Your task to perform on an android device: Show me popular videos on Youtube Image 0: 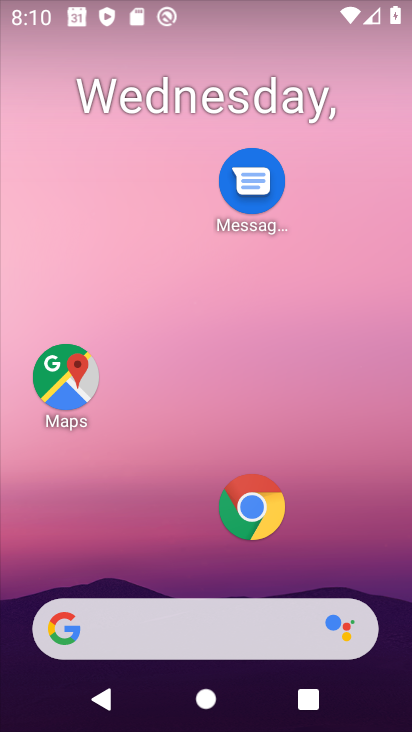
Step 0: drag from (71, 577) to (176, 44)
Your task to perform on an android device: Show me popular videos on Youtube Image 1: 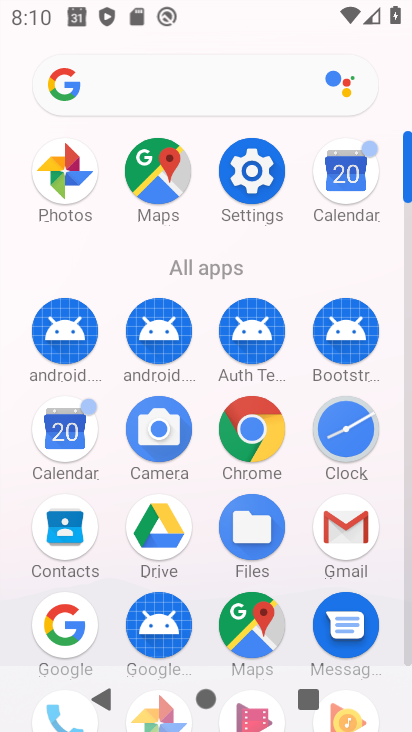
Step 1: drag from (200, 600) to (282, 214)
Your task to perform on an android device: Show me popular videos on Youtube Image 2: 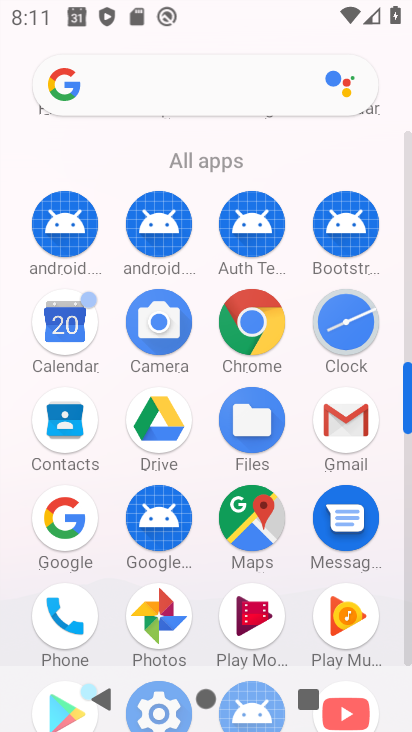
Step 2: drag from (331, 667) to (387, 414)
Your task to perform on an android device: Show me popular videos on Youtube Image 3: 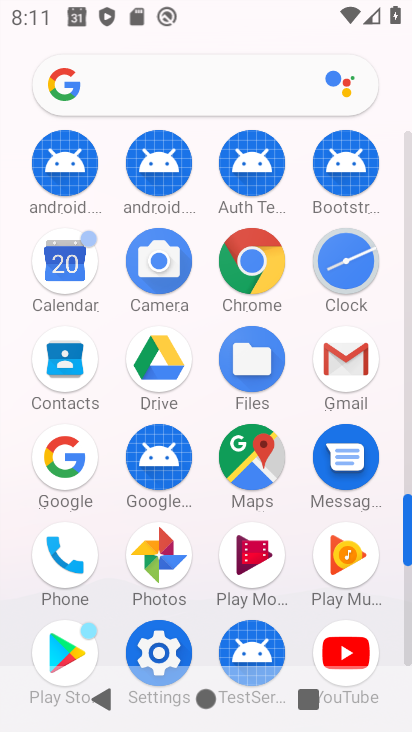
Step 3: click (340, 639)
Your task to perform on an android device: Show me popular videos on Youtube Image 4: 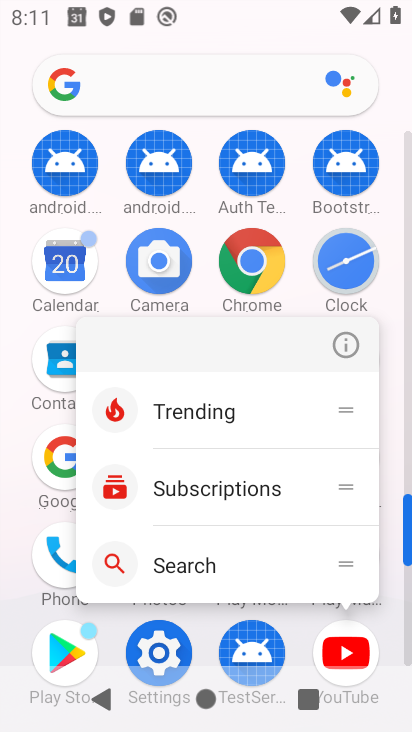
Step 4: click (363, 641)
Your task to perform on an android device: Show me popular videos on Youtube Image 5: 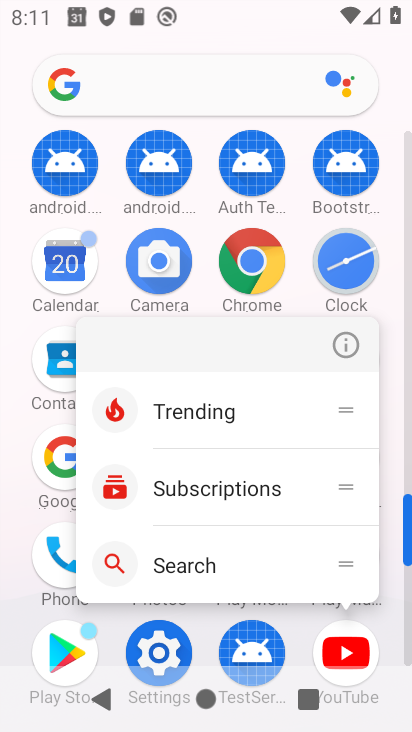
Step 5: click (368, 648)
Your task to perform on an android device: Show me popular videos on Youtube Image 6: 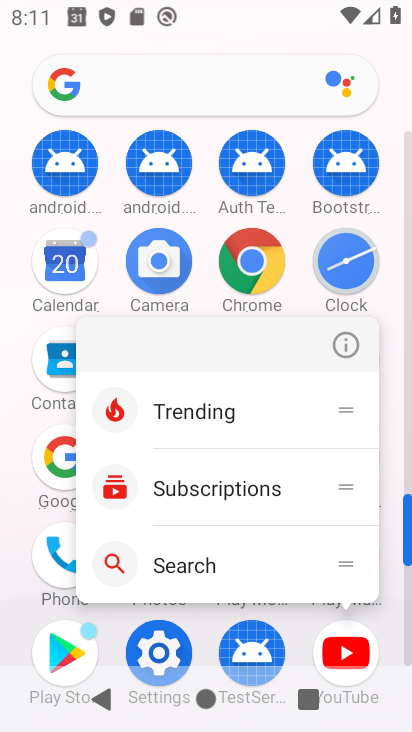
Step 6: click (368, 652)
Your task to perform on an android device: Show me popular videos on Youtube Image 7: 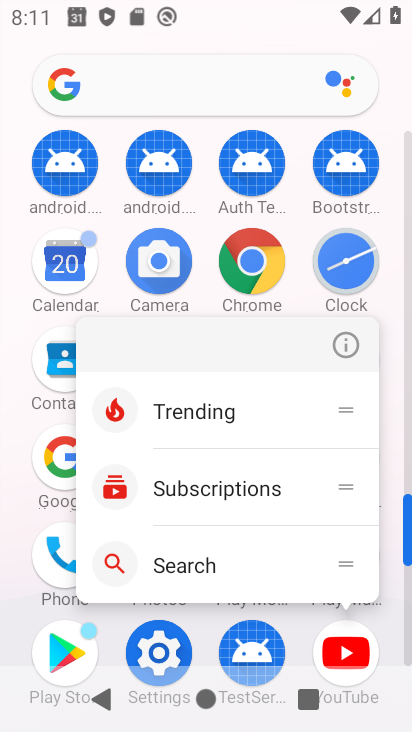
Step 7: click (365, 671)
Your task to perform on an android device: Show me popular videos on Youtube Image 8: 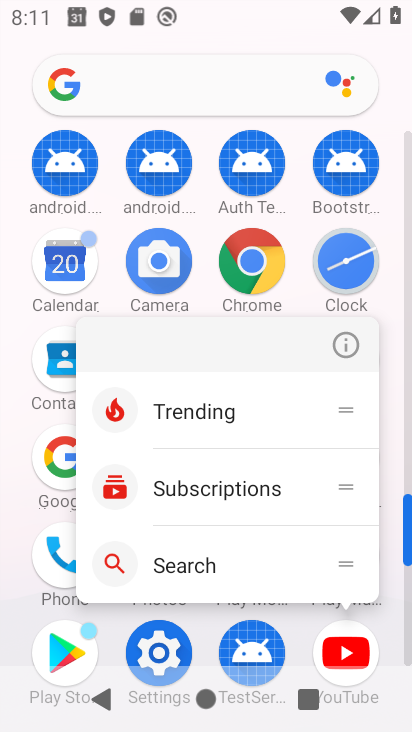
Step 8: click (350, 639)
Your task to perform on an android device: Show me popular videos on Youtube Image 9: 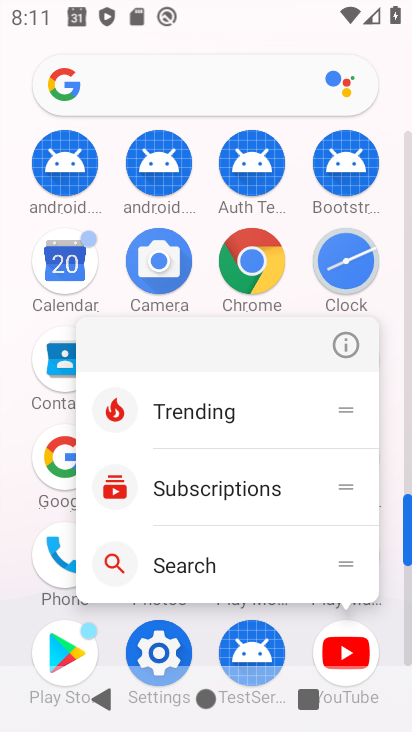
Step 9: click (350, 620)
Your task to perform on an android device: Show me popular videos on Youtube Image 10: 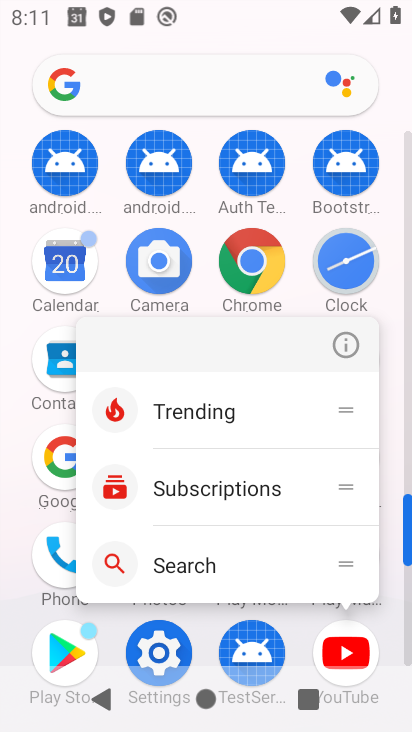
Step 10: click (355, 648)
Your task to perform on an android device: Show me popular videos on Youtube Image 11: 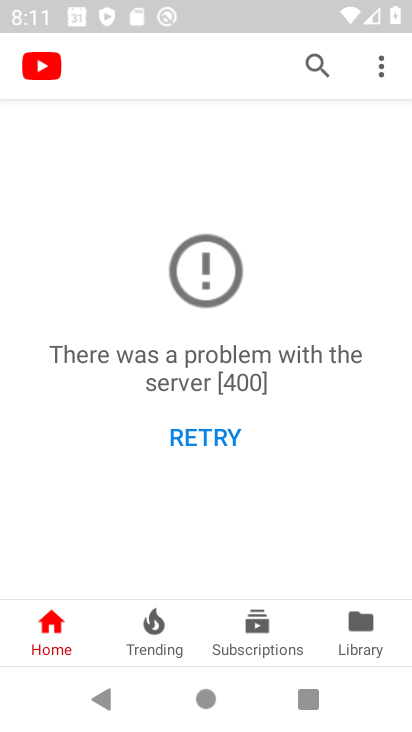
Step 11: click (142, 626)
Your task to perform on an android device: Show me popular videos on Youtube Image 12: 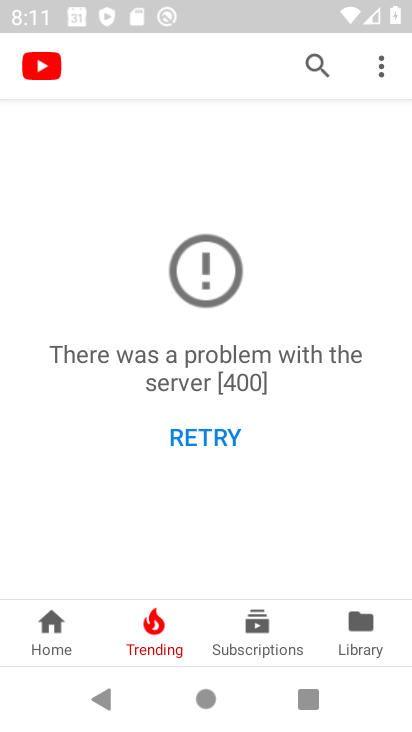
Step 12: task complete